Your task to perform on an android device: Go to battery settings Image 0: 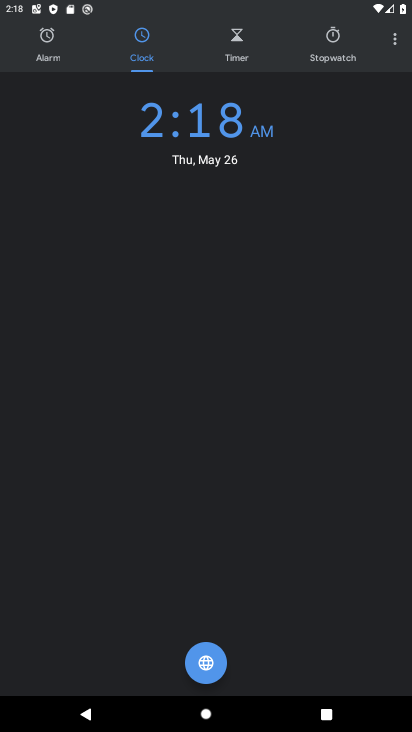
Step 0: press home button
Your task to perform on an android device: Go to battery settings Image 1: 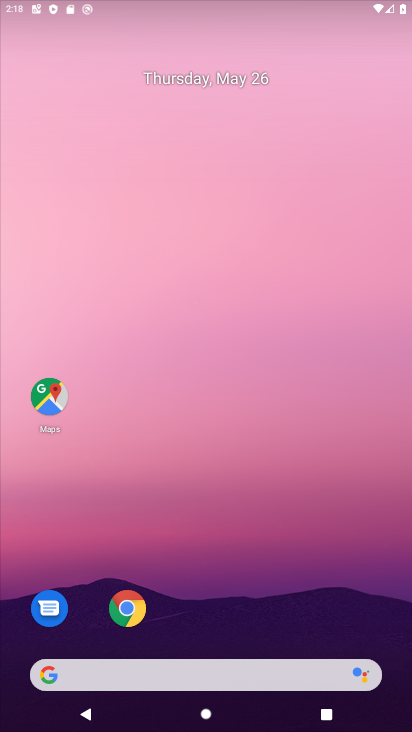
Step 1: drag from (336, 536) to (300, 95)
Your task to perform on an android device: Go to battery settings Image 2: 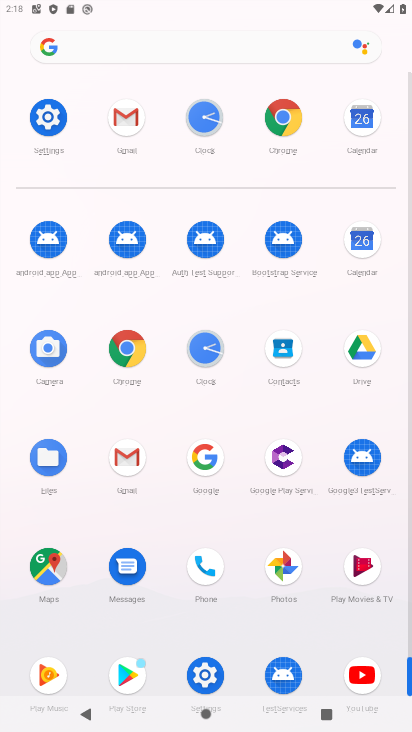
Step 2: click (43, 120)
Your task to perform on an android device: Go to battery settings Image 3: 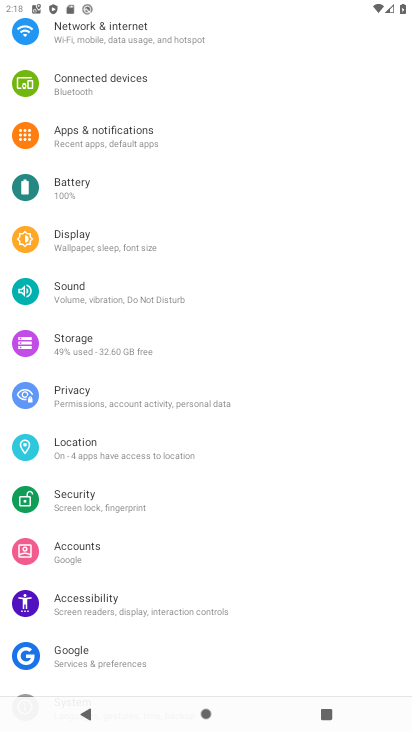
Step 3: drag from (190, 168) to (218, 612)
Your task to perform on an android device: Go to battery settings Image 4: 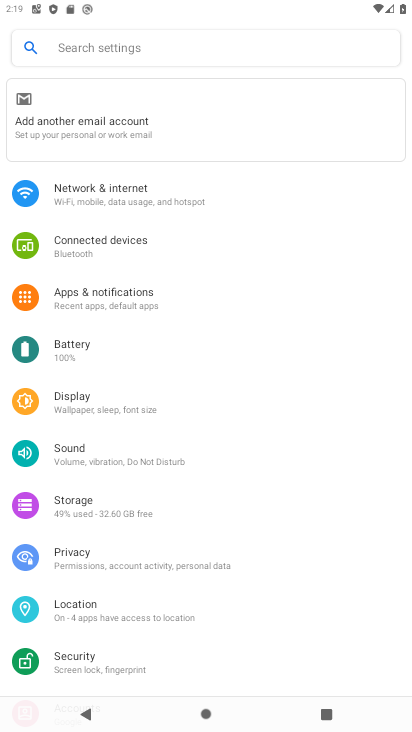
Step 4: click (68, 352)
Your task to perform on an android device: Go to battery settings Image 5: 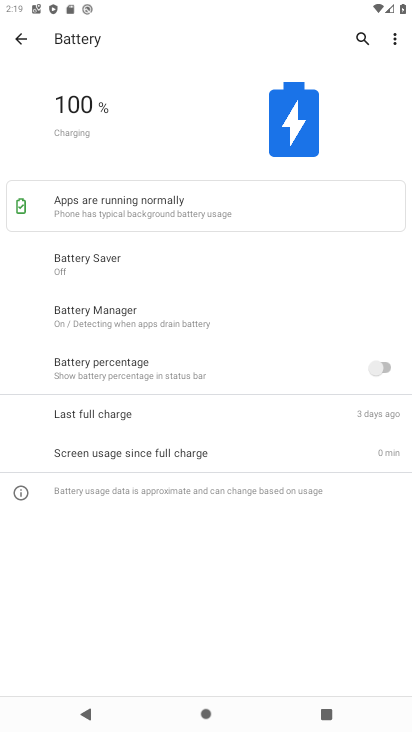
Step 5: task complete